Your task to perform on an android device: Open notification settings Image 0: 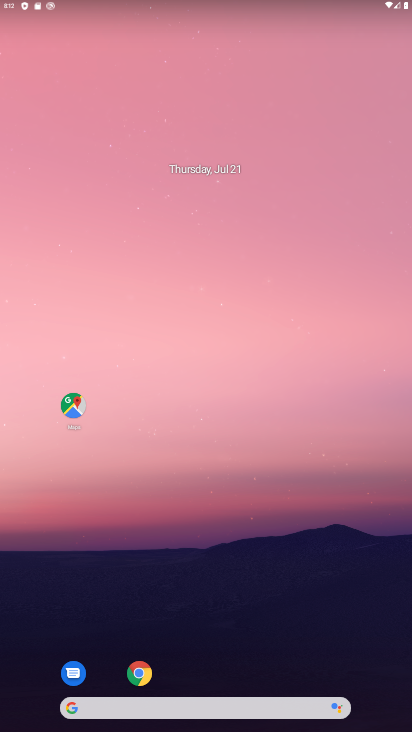
Step 0: drag from (211, 731) to (151, 212)
Your task to perform on an android device: Open notification settings Image 1: 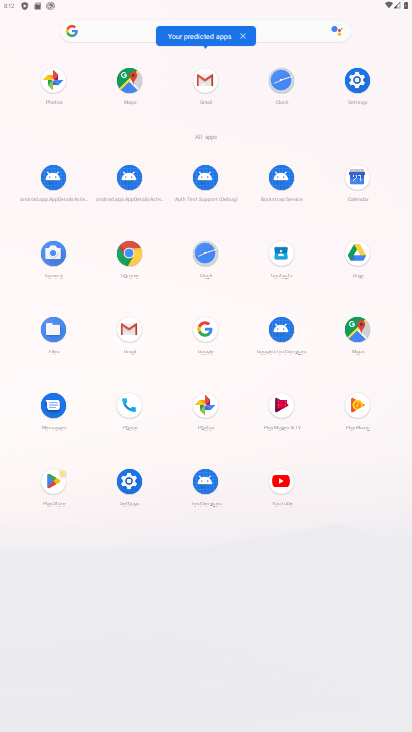
Step 1: click (361, 80)
Your task to perform on an android device: Open notification settings Image 2: 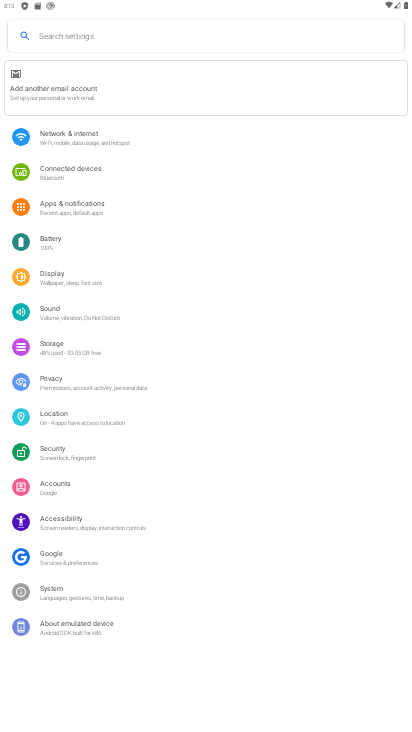
Step 2: click (59, 208)
Your task to perform on an android device: Open notification settings Image 3: 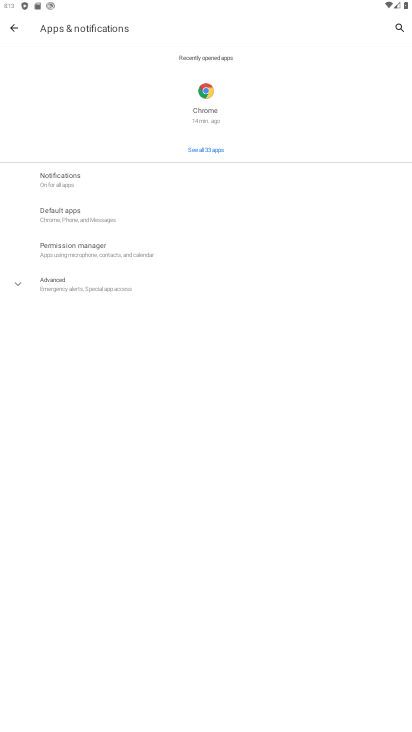
Step 3: click (55, 175)
Your task to perform on an android device: Open notification settings Image 4: 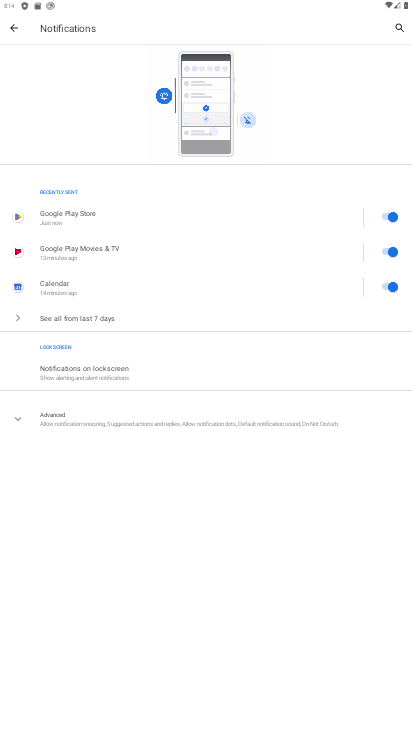
Step 4: task complete